Your task to perform on an android device: Open Google Chrome and open the bookmarks view Image 0: 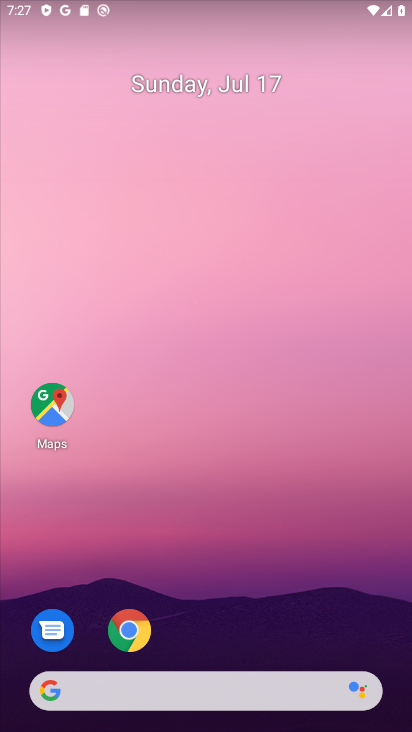
Step 0: click (24, 719)
Your task to perform on an android device: Open Google Chrome and open the bookmarks view Image 1: 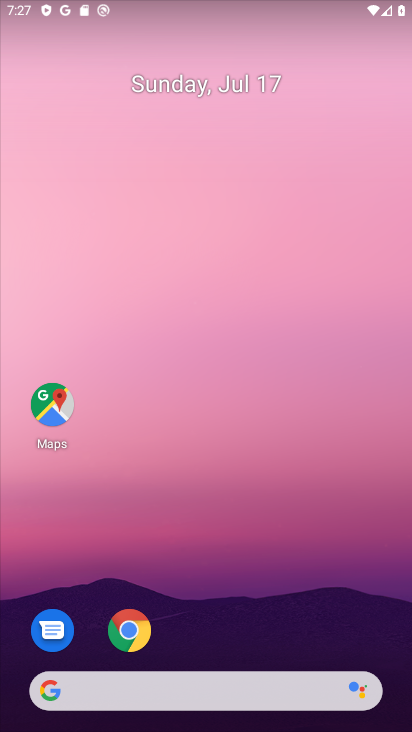
Step 1: click (131, 630)
Your task to perform on an android device: Open Google Chrome and open the bookmarks view Image 2: 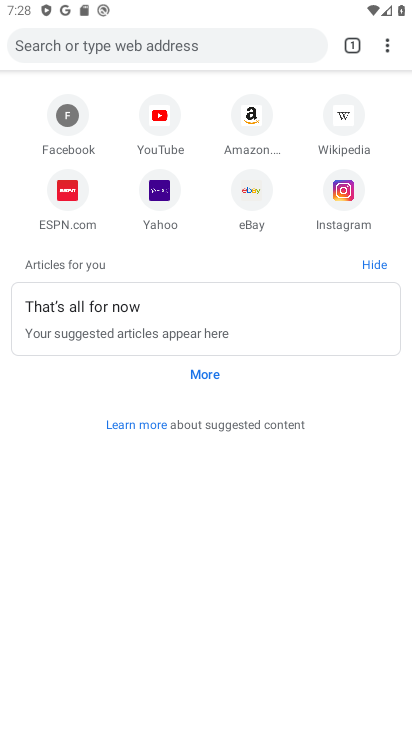
Step 2: click (388, 46)
Your task to perform on an android device: Open Google Chrome and open the bookmarks view Image 3: 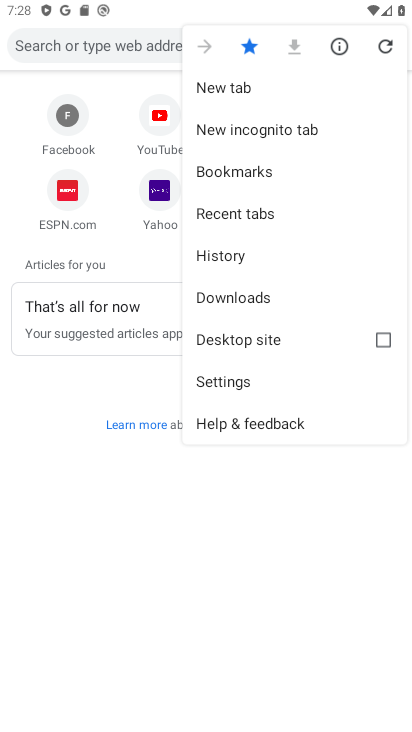
Step 3: click (212, 378)
Your task to perform on an android device: Open Google Chrome and open the bookmarks view Image 4: 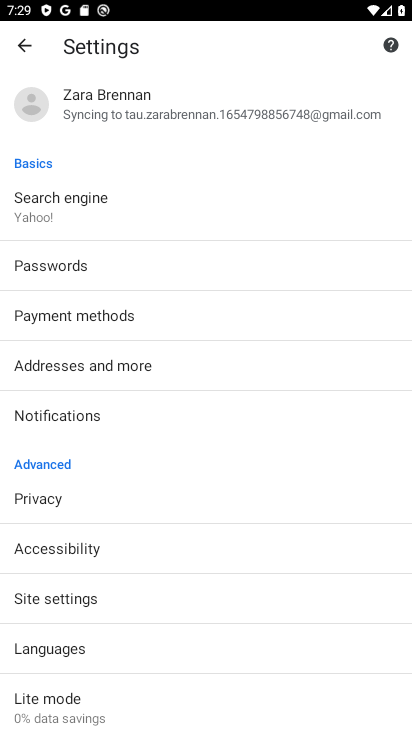
Step 4: click (27, 45)
Your task to perform on an android device: Open Google Chrome and open the bookmarks view Image 5: 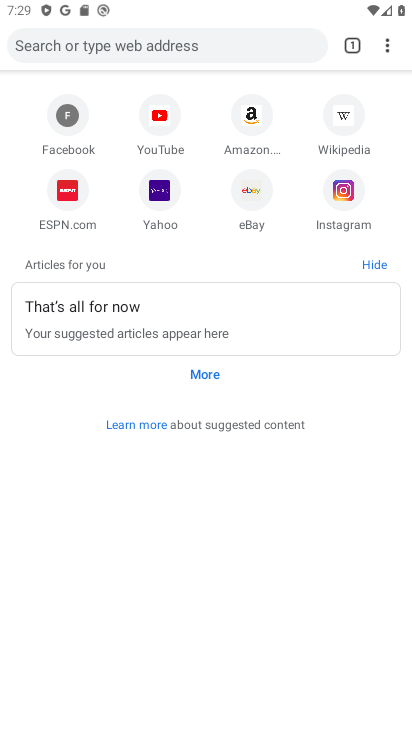
Step 5: click (386, 45)
Your task to perform on an android device: Open Google Chrome and open the bookmarks view Image 6: 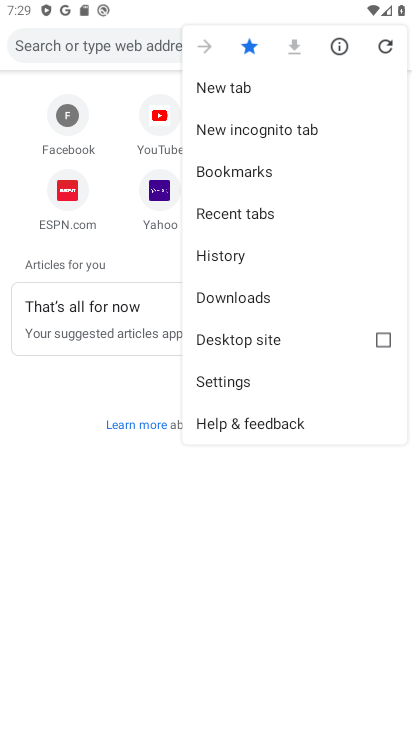
Step 6: click (265, 170)
Your task to perform on an android device: Open Google Chrome and open the bookmarks view Image 7: 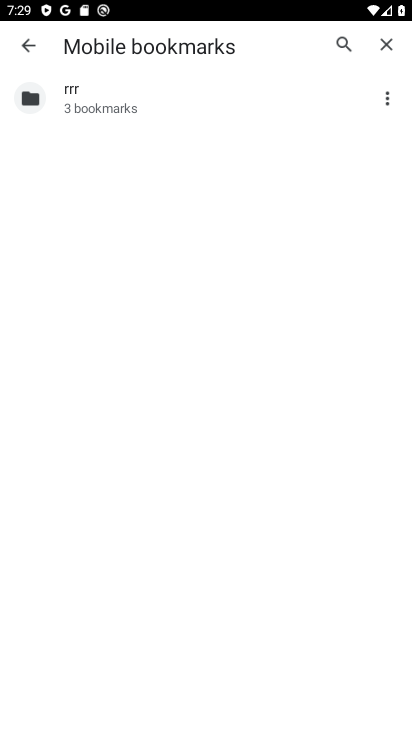
Step 7: task complete